Your task to perform on an android device: Show me popular videos on Youtube Image 0: 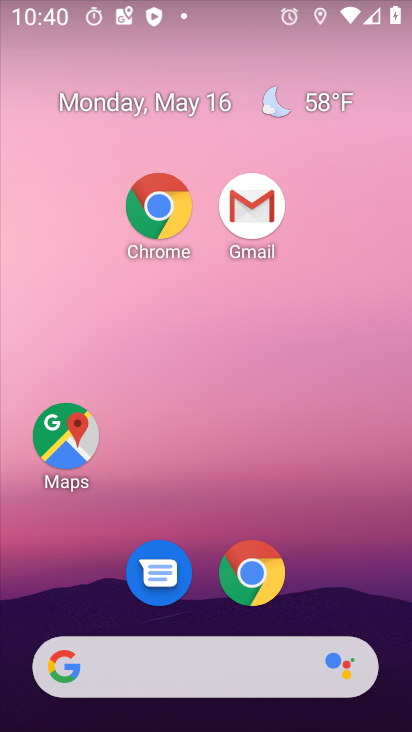
Step 0: drag from (320, 632) to (189, 140)
Your task to perform on an android device: Show me popular videos on Youtube Image 1: 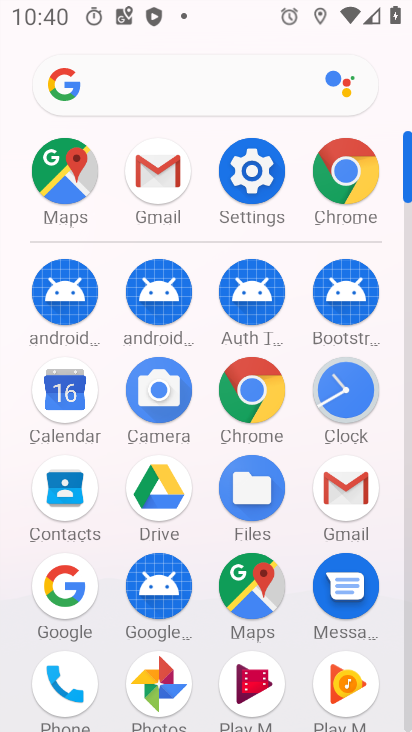
Step 1: drag from (223, 606) to (126, 94)
Your task to perform on an android device: Show me popular videos on Youtube Image 2: 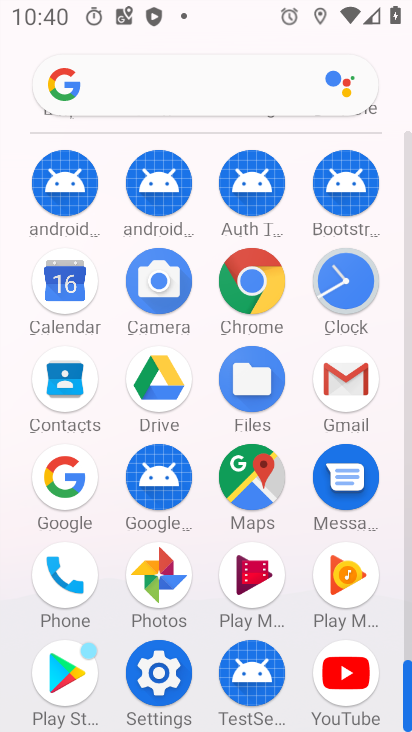
Step 2: drag from (288, 629) to (240, 285)
Your task to perform on an android device: Show me popular videos on Youtube Image 3: 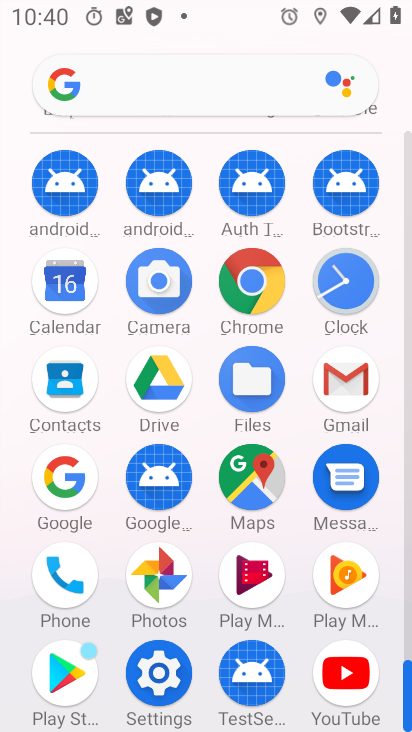
Step 3: click (348, 675)
Your task to perform on an android device: Show me popular videos on Youtube Image 4: 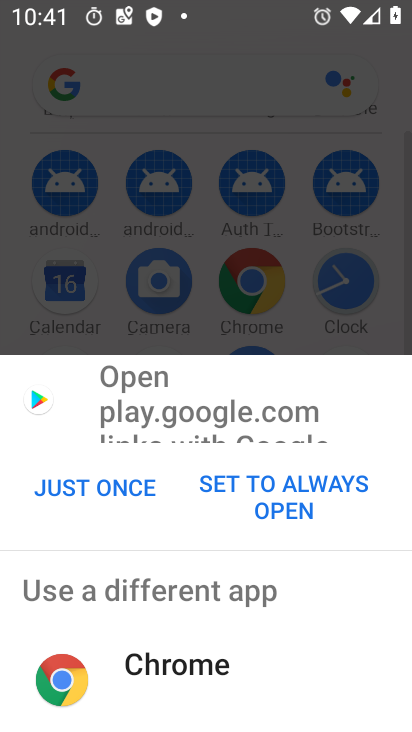
Step 4: click (181, 659)
Your task to perform on an android device: Show me popular videos on Youtube Image 5: 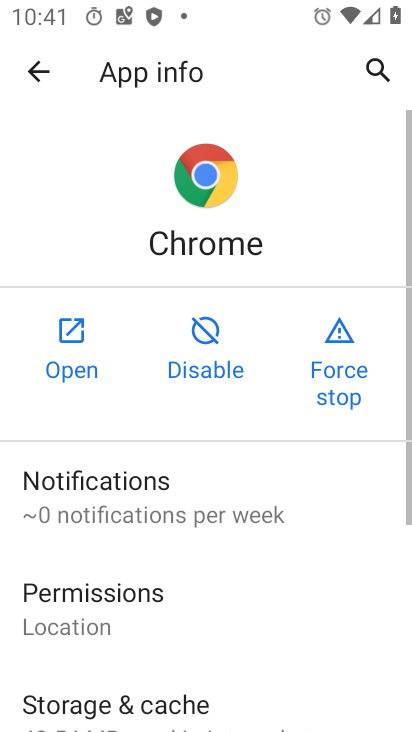
Step 5: task complete